Your task to perform on an android device: turn off location Image 0: 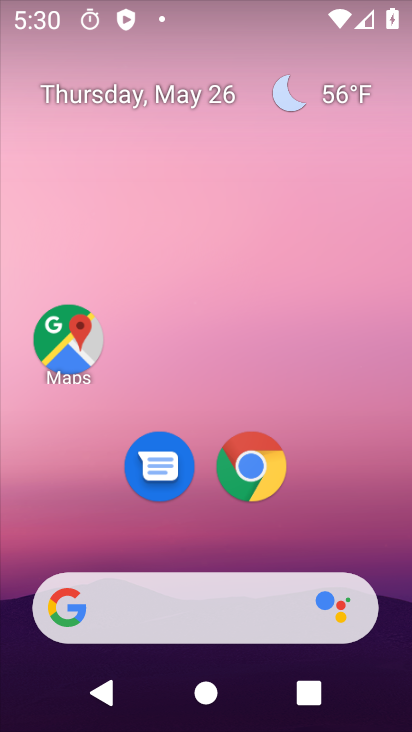
Step 0: drag from (327, 517) to (299, 100)
Your task to perform on an android device: turn off location Image 1: 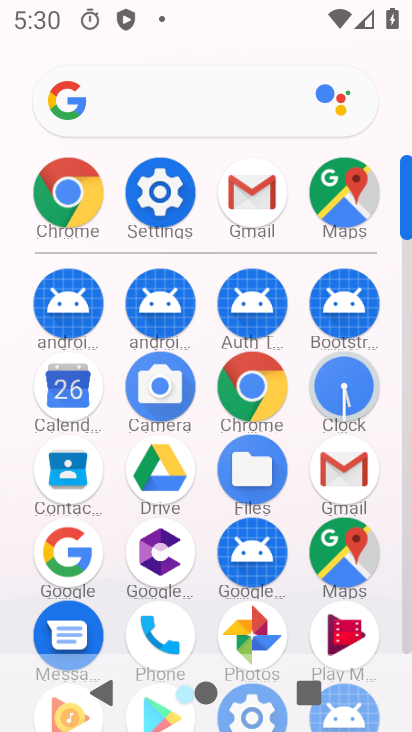
Step 1: click (163, 189)
Your task to perform on an android device: turn off location Image 2: 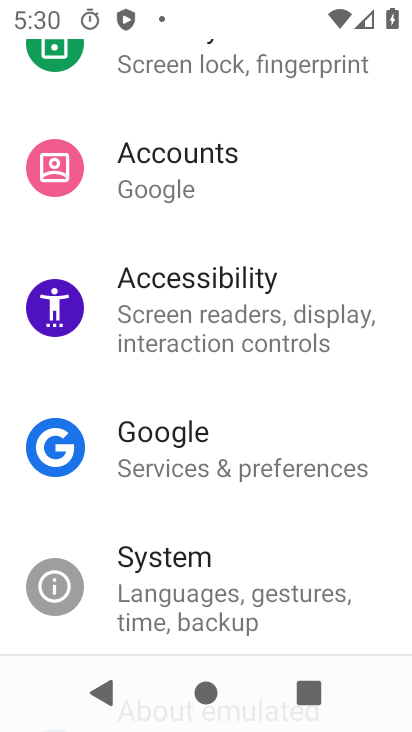
Step 2: drag from (256, 133) to (233, 435)
Your task to perform on an android device: turn off location Image 3: 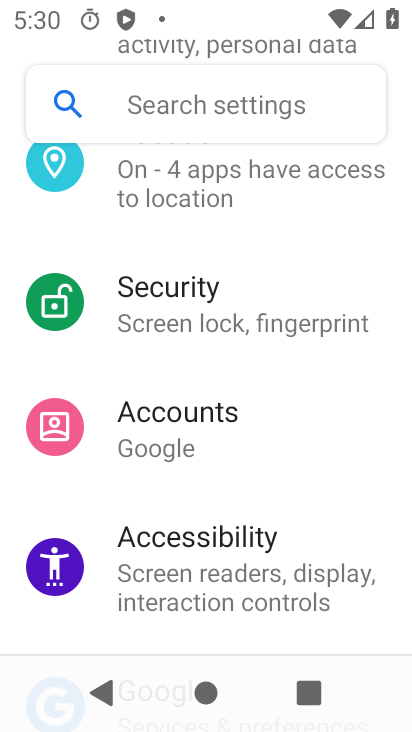
Step 3: drag from (225, 204) to (225, 419)
Your task to perform on an android device: turn off location Image 4: 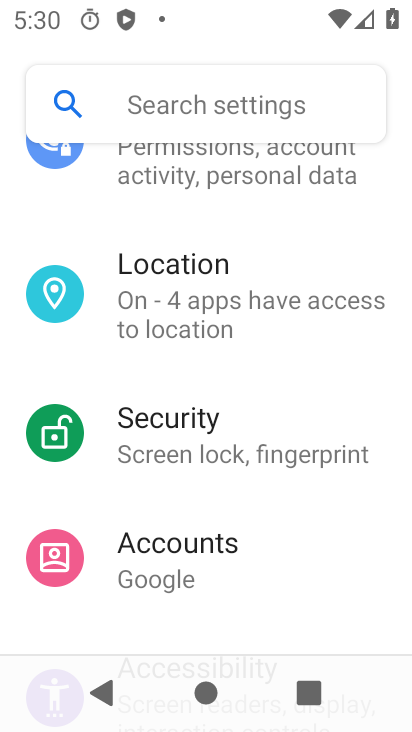
Step 4: click (151, 300)
Your task to perform on an android device: turn off location Image 5: 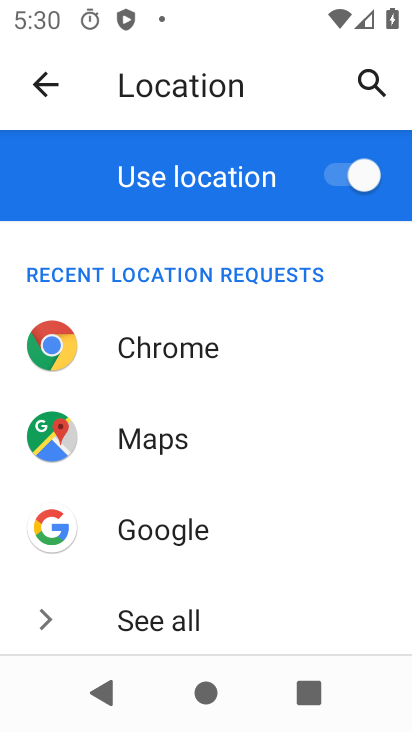
Step 5: drag from (325, 528) to (313, 373)
Your task to perform on an android device: turn off location Image 6: 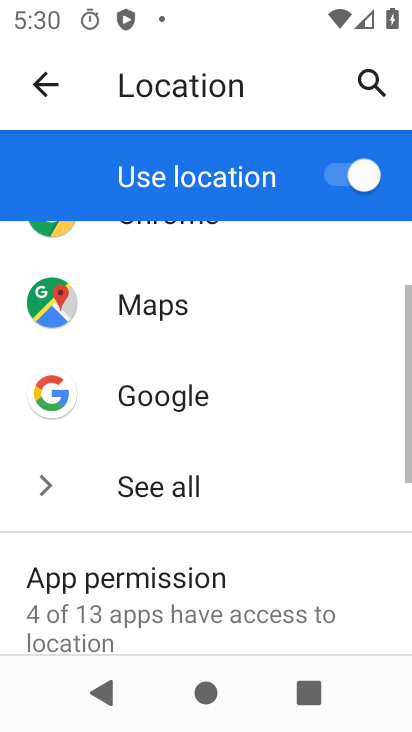
Step 6: click (324, 175)
Your task to perform on an android device: turn off location Image 7: 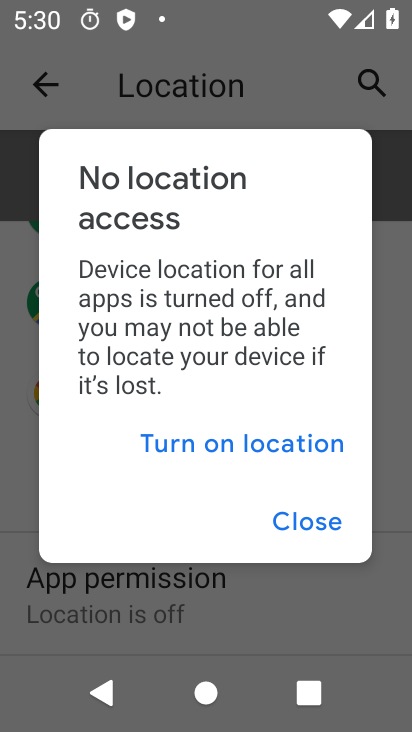
Step 7: click (312, 527)
Your task to perform on an android device: turn off location Image 8: 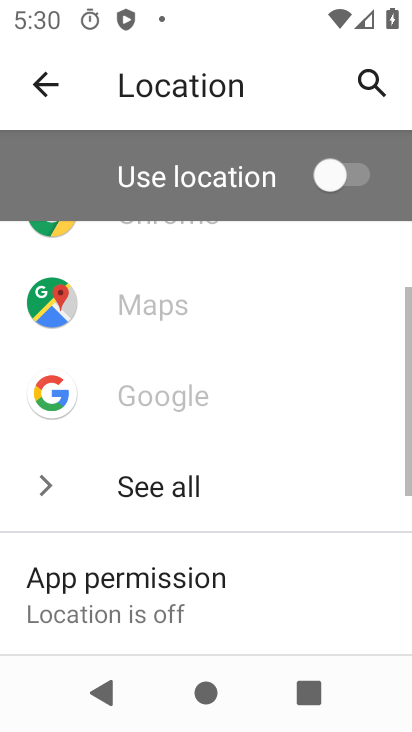
Step 8: task complete